Your task to perform on an android device: Play the last video I watched on Youtube Image 0: 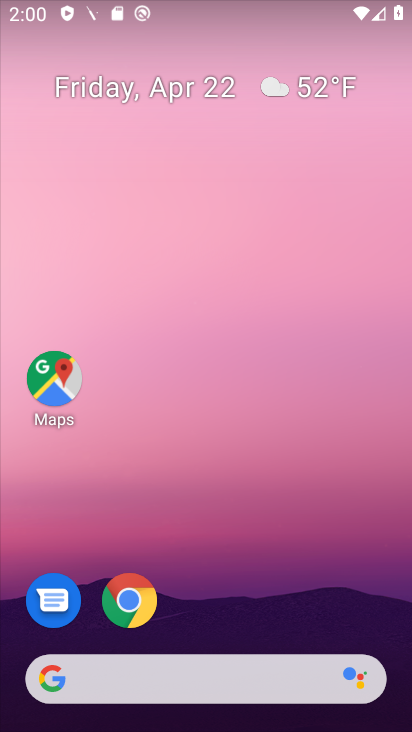
Step 0: drag from (321, 540) to (225, 8)
Your task to perform on an android device: Play the last video I watched on Youtube Image 1: 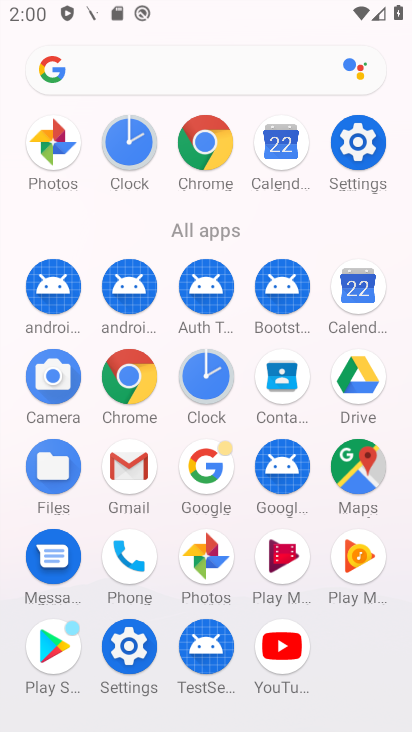
Step 1: drag from (12, 546) to (5, 245)
Your task to perform on an android device: Play the last video I watched on Youtube Image 2: 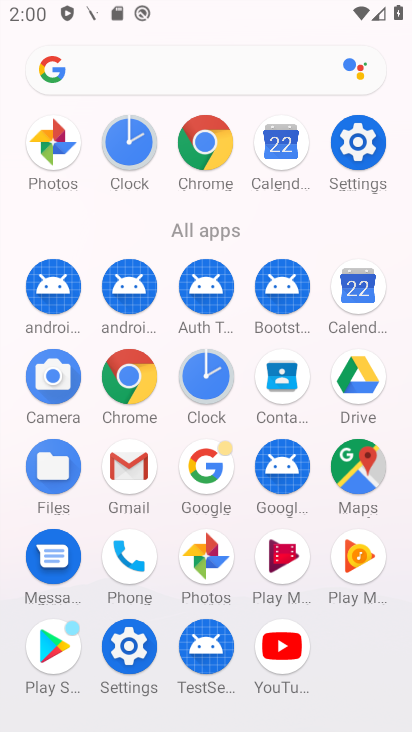
Step 2: click (280, 643)
Your task to perform on an android device: Play the last video I watched on Youtube Image 3: 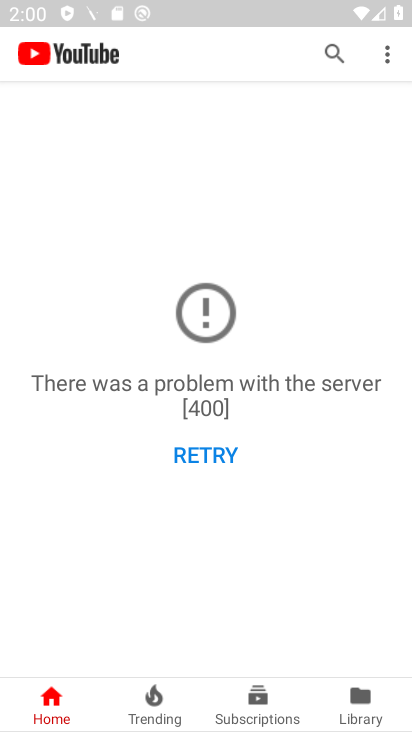
Step 3: click (359, 700)
Your task to perform on an android device: Play the last video I watched on Youtube Image 4: 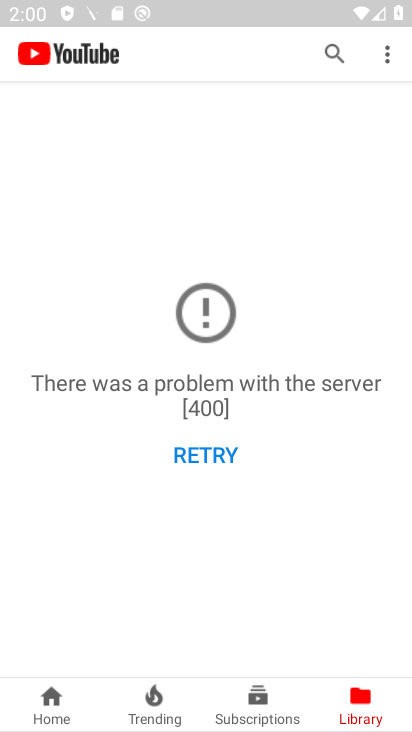
Step 4: click (359, 700)
Your task to perform on an android device: Play the last video I watched on Youtube Image 5: 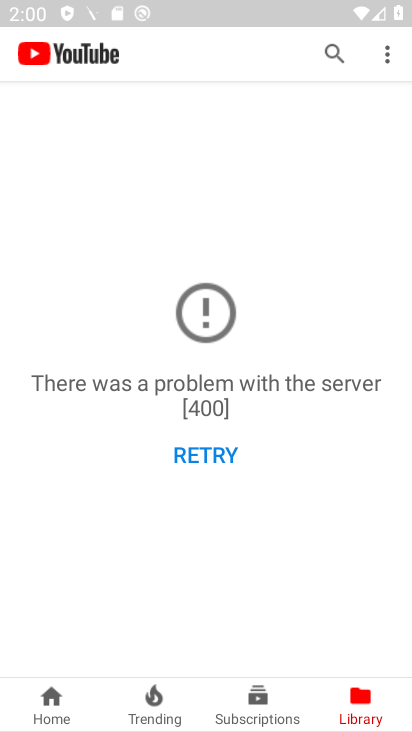
Step 5: task complete